Your task to perform on an android device: Do I have any events this weekend? Image 0: 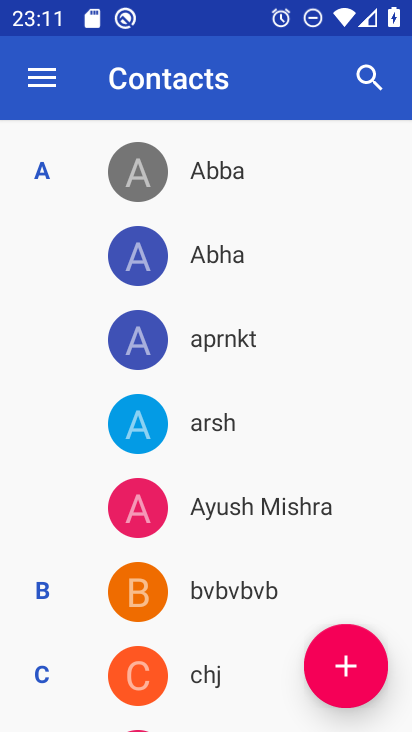
Step 0: press home button
Your task to perform on an android device: Do I have any events this weekend? Image 1: 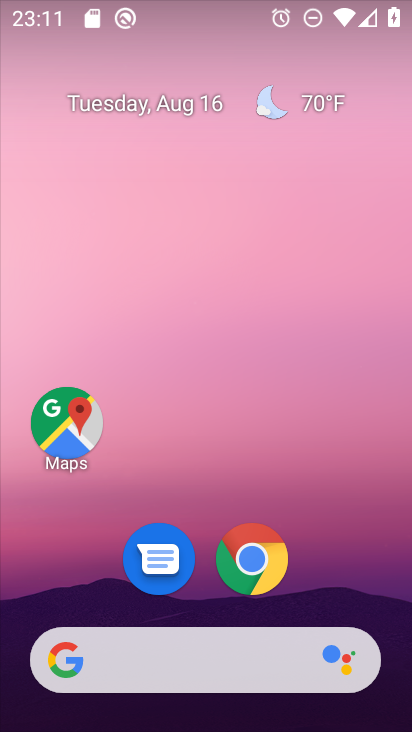
Step 1: drag from (209, 665) to (242, 146)
Your task to perform on an android device: Do I have any events this weekend? Image 2: 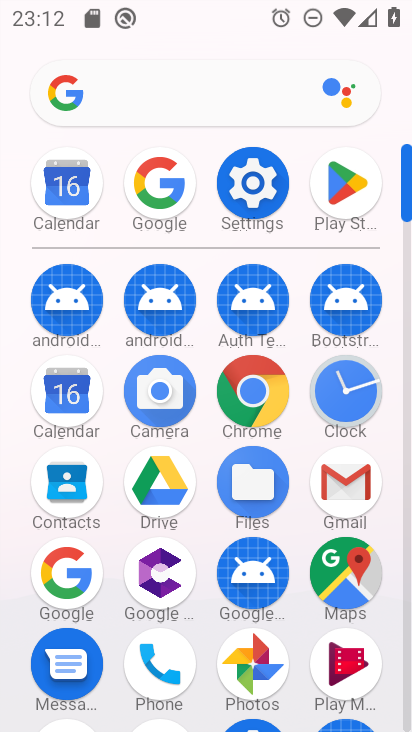
Step 2: click (66, 398)
Your task to perform on an android device: Do I have any events this weekend? Image 3: 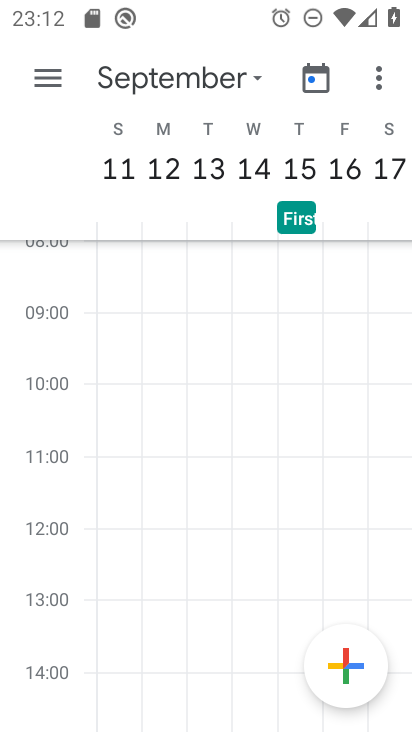
Step 3: click (321, 86)
Your task to perform on an android device: Do I have any events this weekend? Image 4: 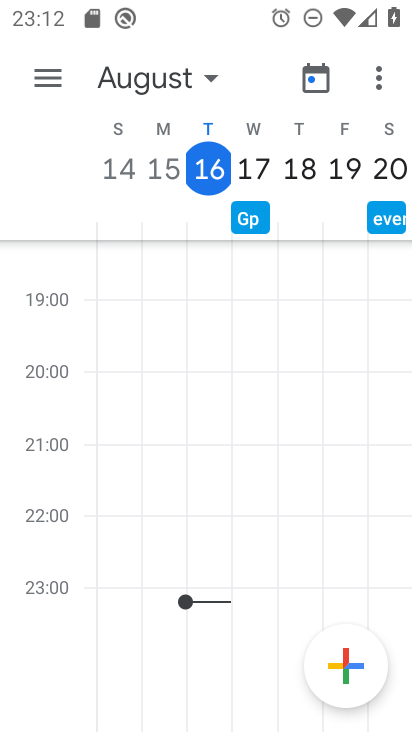
Step 4: click (206, 79)
Your task to perform on an android device: Do I have any events this weekend? Image 5: 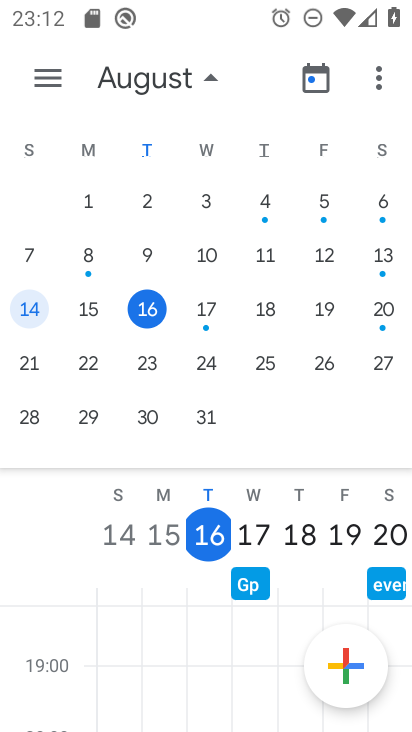
Step 5: click (385, 309)
Your task to perform on an android device: Do I have any events this weekend? Image 6: 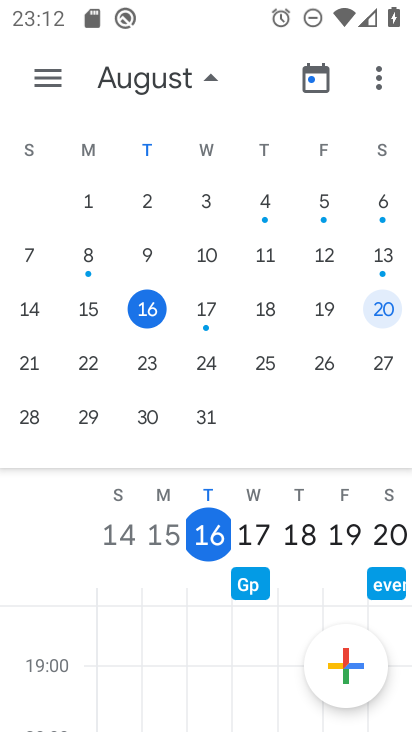
Step 6: click (60, 73)
Your task to perform on an android device: Do I have any events this weekend? Image 7: 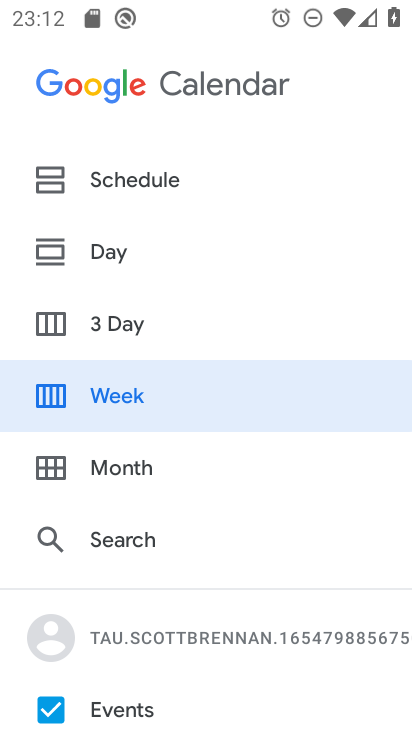
Step 7: click (79, 174)
Your task to perform on an android device: Do I have any events this weekend? Image 8: 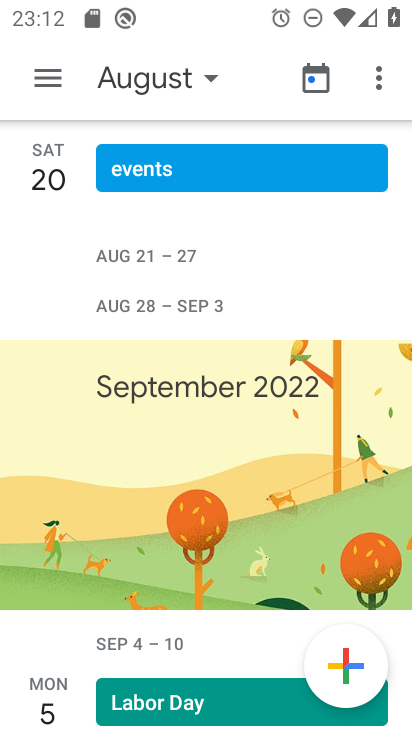
Step 8: task complete